Your task to perform on an android device: turn on priority inbox in the gmail app Image 0: 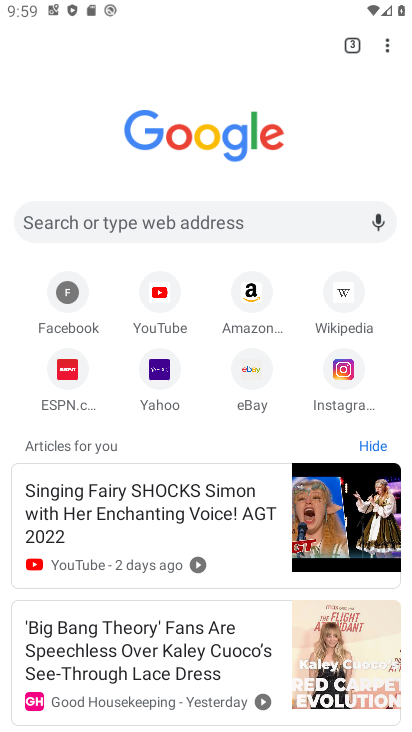
Step 0: press home button
Your task to perform on an android device: turn on priority inbox in the gmail app Image 1: 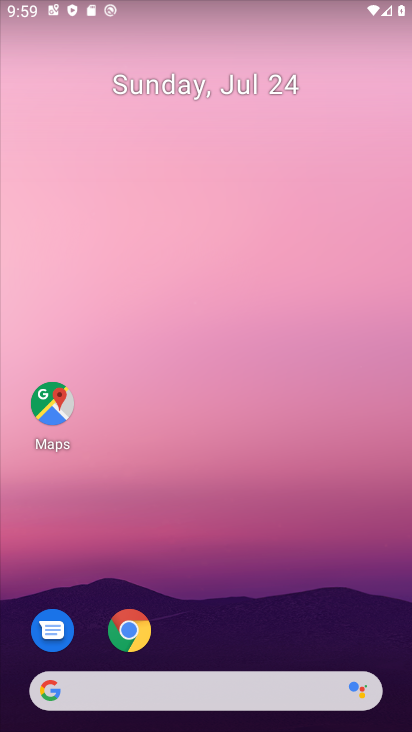
Step 1: drag from (199, 633) to (89, 143)
Your task to perform on an android device: turn on priority inbox in the gmail app Image 2: 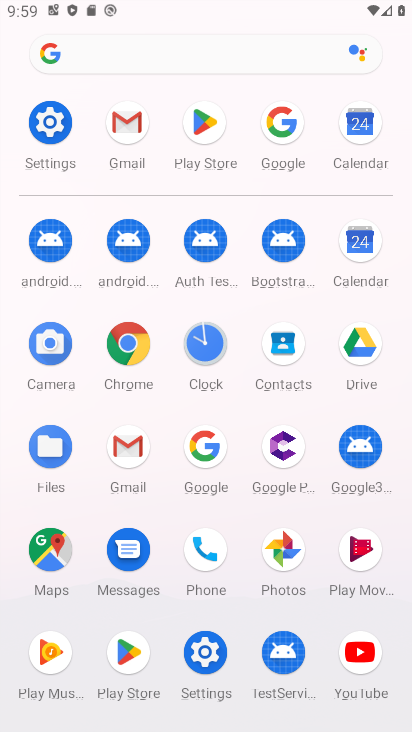
Step 2: click (118, 140)
Your task to perform on an android device: turn on priority inbox in the gmail app Image 3: 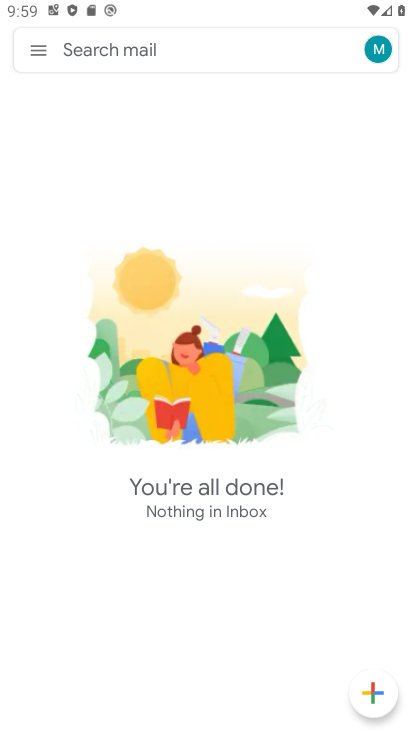
Step 3: click (40, 54)
Your task to perform on an android device: turn on priority inbox in the gmail app Image 4: 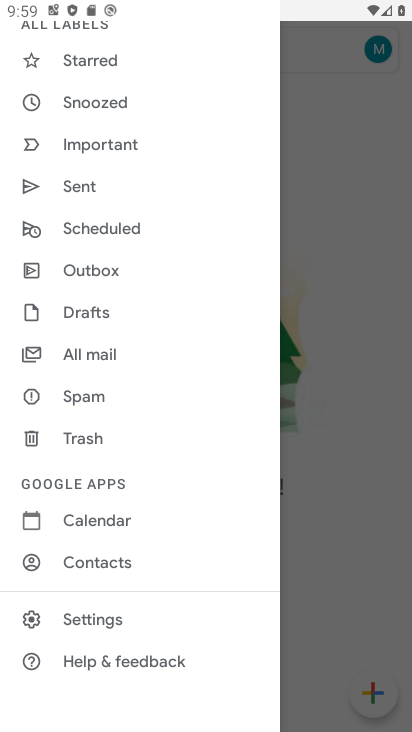
Step 4: click (89, 620)
Your task to perform on an android device: turn on priority inbox in the gmail app Image 5: 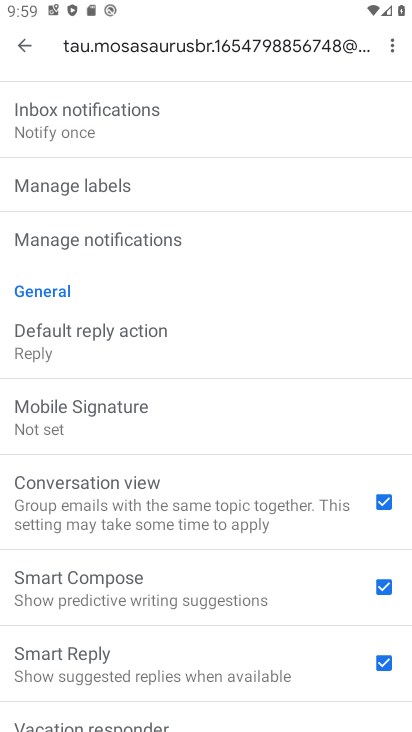
Step 5: drag from (91, 189) to (144, 558)
Your task to perform on an android device: turn on priority inbox in the gmail app Image 6: 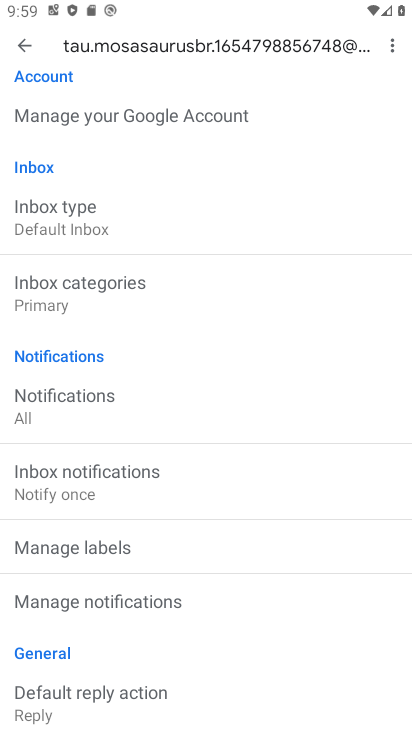
Step 6: click (128, 232)
Your task to perform on an android device: turn on priority inbox in the gmail app Image 7: 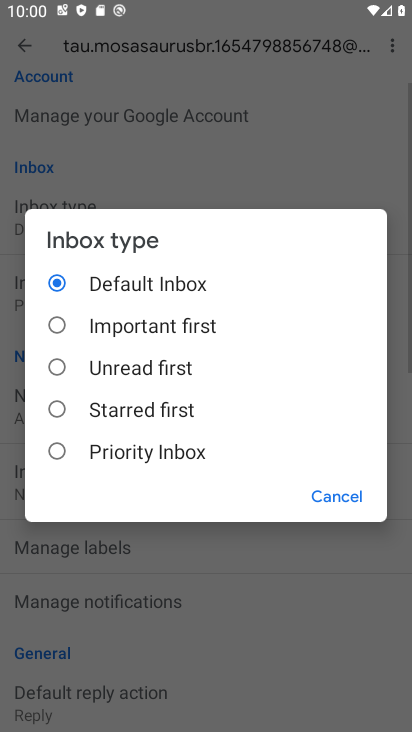
Step 7: click (133, 455)
Your task to perform on an android device: turn on priority inbox in the gmail app Image 8: 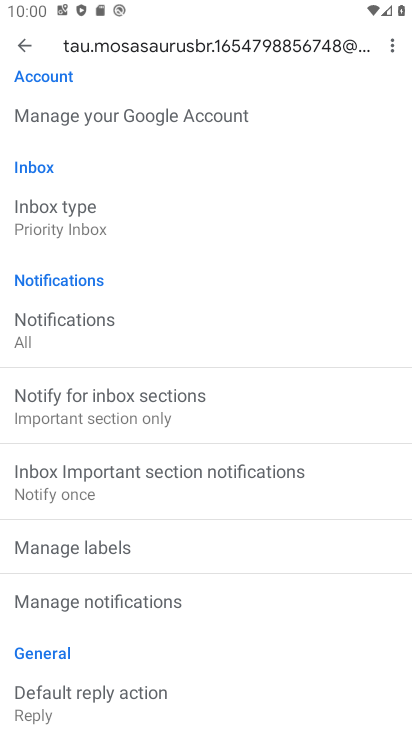
Step 8: task complete